Your task to perform on an android device: turn off sleep mode Image 0: 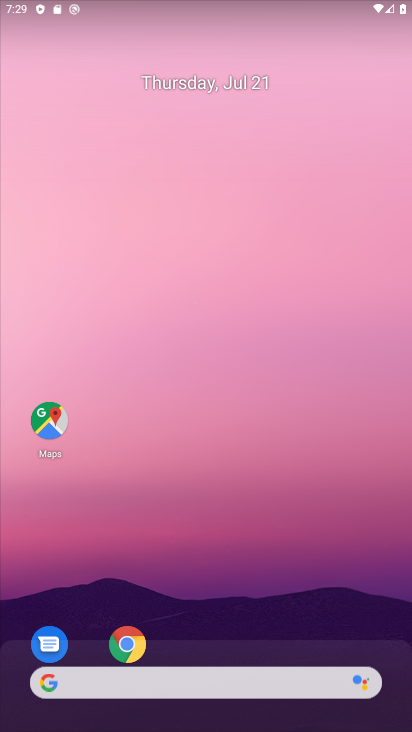
Step 0: drag from (251, 612) to (170, 251)
Your task to perform on an android device: turn off sleep mode Image 1: 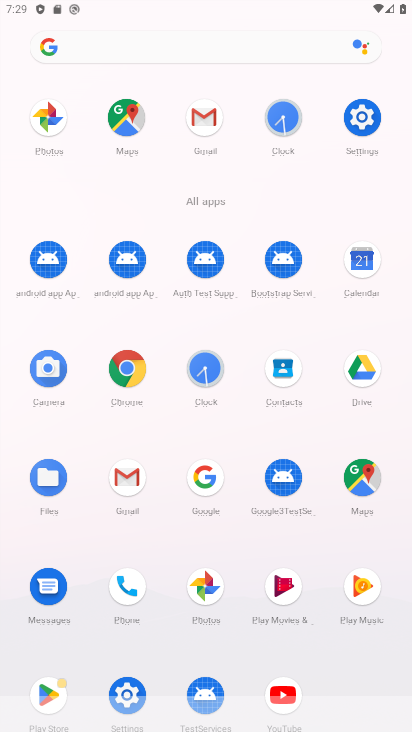
Step 1: click (362, 116)
Your task to perform on an android device: turn off sleep mode Image 2: 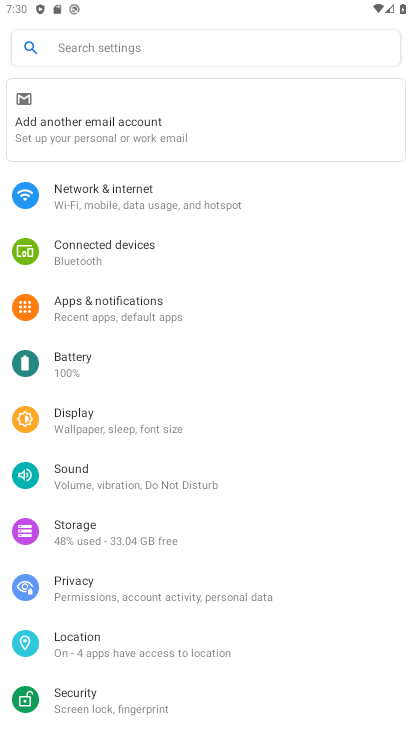
Step 2: task complete